Your task to perform on an android device: What's the weather going to be this weekend? Image 0: 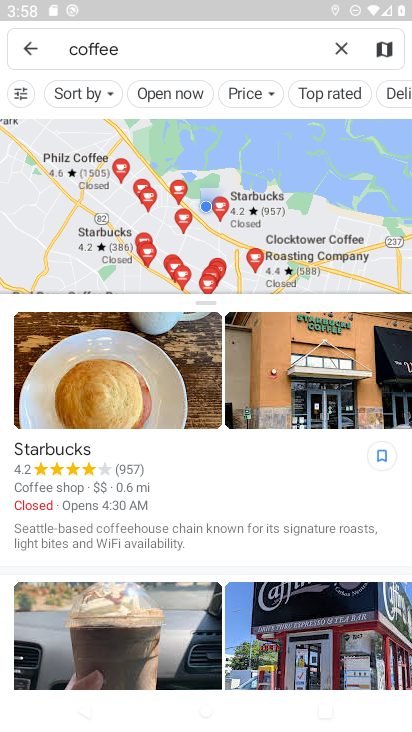
Step 0: press home button
Your task to perform on an android device: What's the weather going to be this weekend? Image 1: 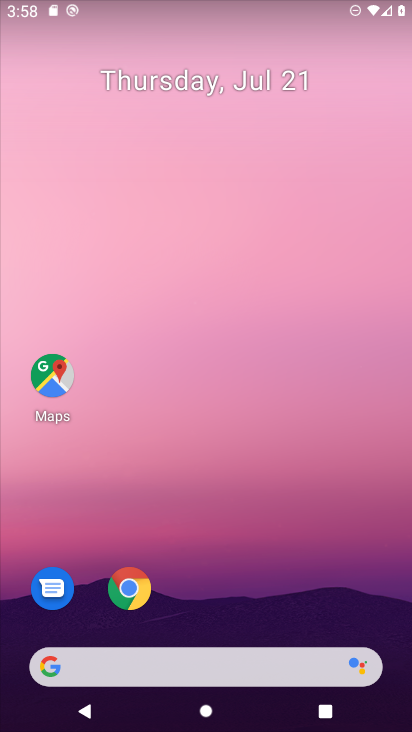
Step 1: drag from (269, 691) to (336, 123)
Your task to perform on an android device: What's the weather going to be this weekend? Image 2: 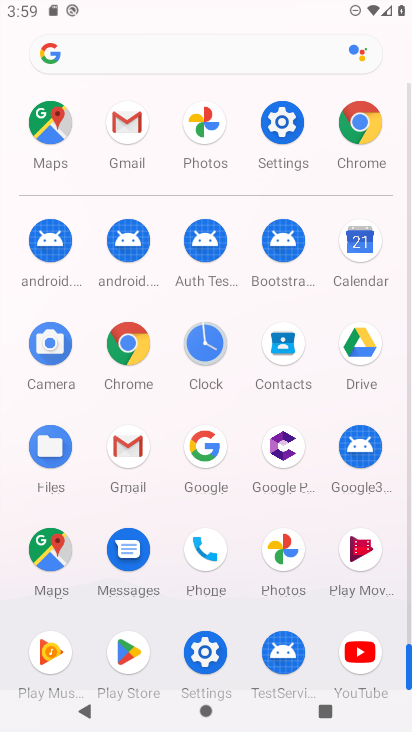
Step 2: click (200, 462)
Your task to perform on an android device: What's the weather going to be this weekend? Image 3: 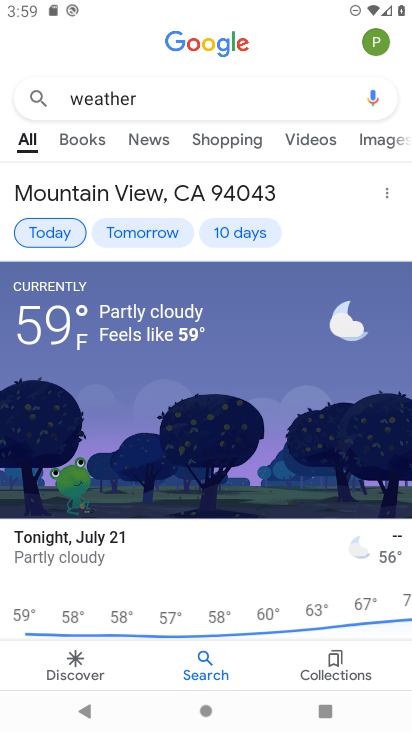
Step 3: click (236, 234)
Your task to perform on an android device: What's the weather going to be this weekend? Image 4: 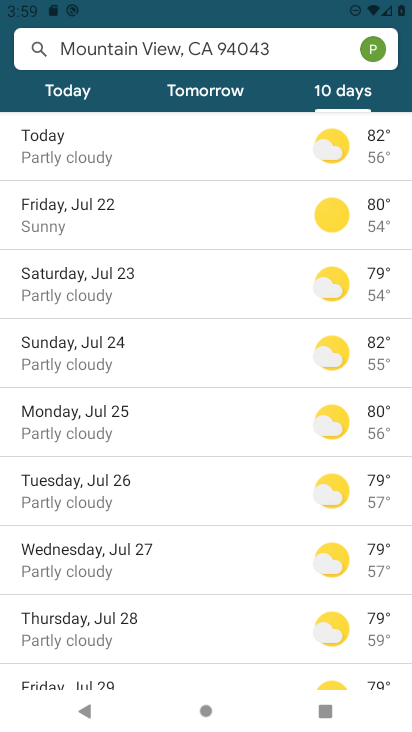
Step 4: task complete